Your task to perform on an android device: turn on translation in the chrome app Image 0: 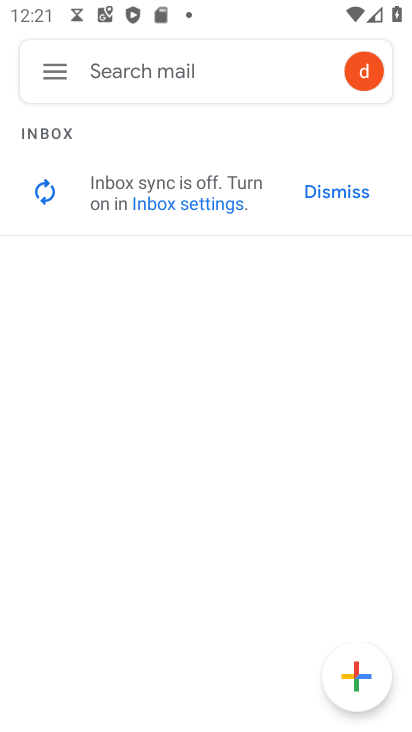
Step 0: press home button
Your task to perform on an android device: turn on translation in the chrome app Image 1: 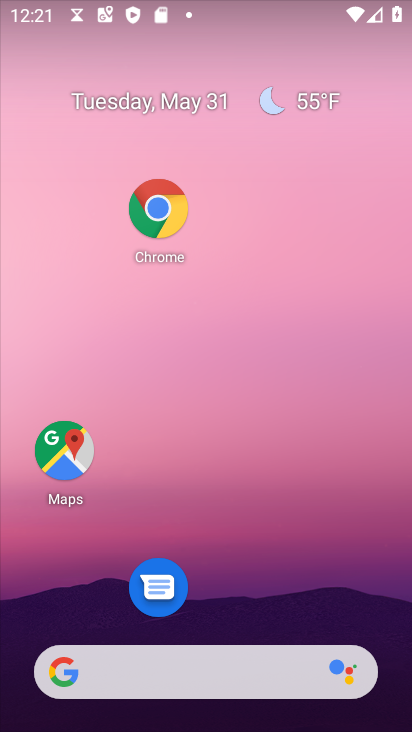
Step 1: click (167, 209)
Your task to perform on an android device: turn on translation in the chrome app Image 2: 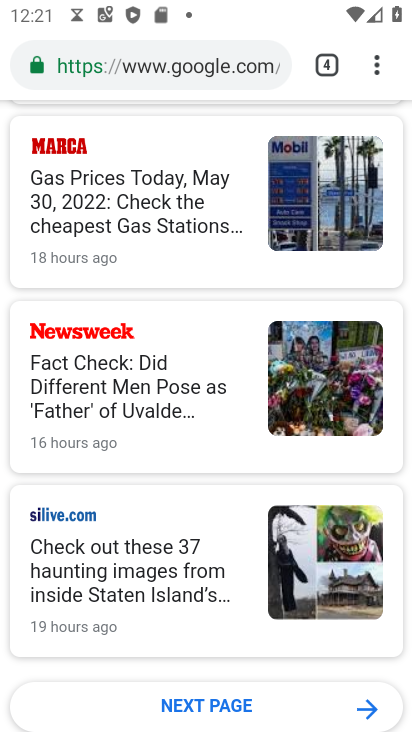
Step 2: click (374, 65)
Your task to perform on an android device: turn on translation in the chrome app Image 3: 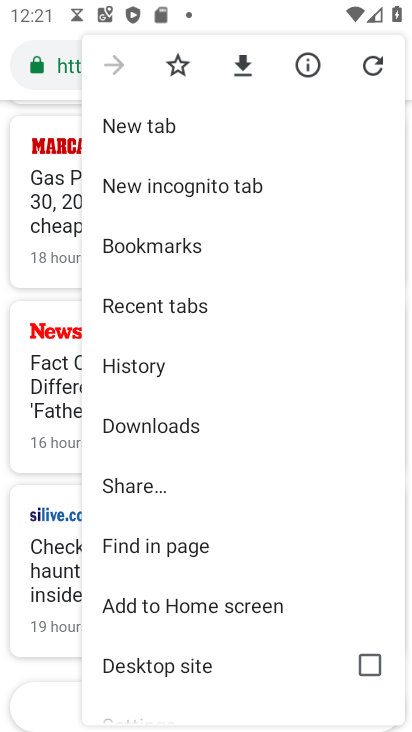
Step 3: drag from (188, 665) to (173, 428)
Your task to perform on an android device: turn on translation in the chrome app Image 4: 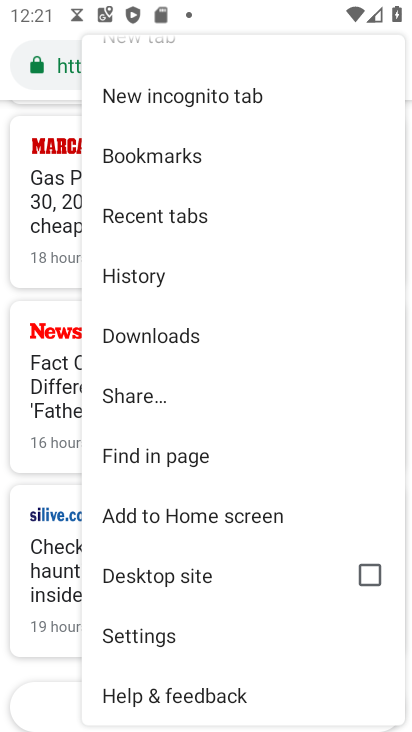
Step 4: click (143, 627)
Your task to perform on an android device: turn on translation in the chrome app Image 5: 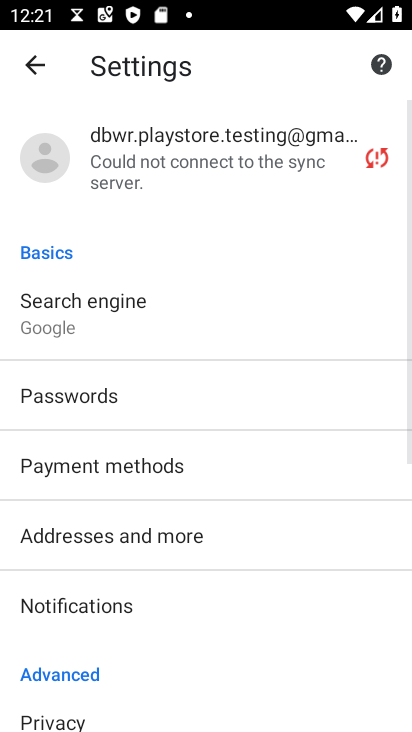
Step 5: drag from (177, 669) to (173, 356)
Your task to perform on an android device: turn on translation in the chrome app Image 6: 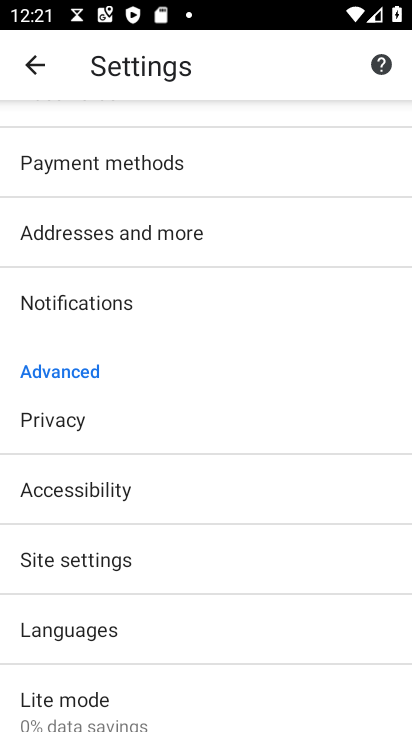
Step 6: click (87, 627)
Your task to perform on an android device: turn on translation in the chrome app Image 7: 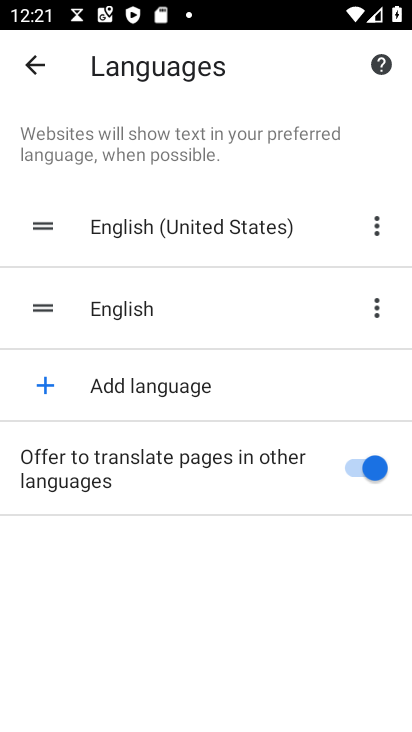
Step 7: task complete